Your task to perform on an android device: Open display settings Image 0: 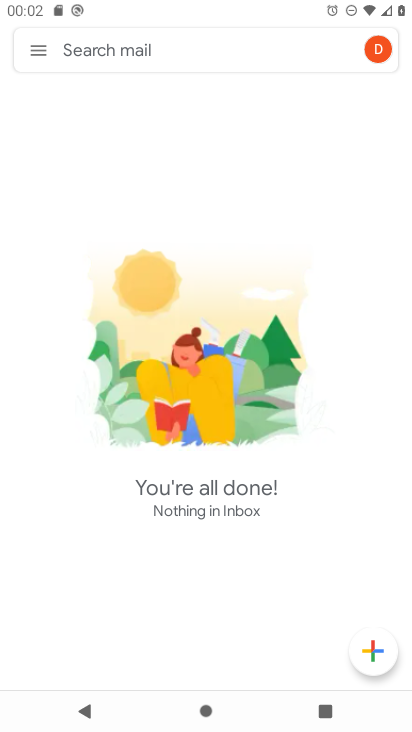
Step 0: press home button
Your task to perform on an android device: Open display settings Image 1: 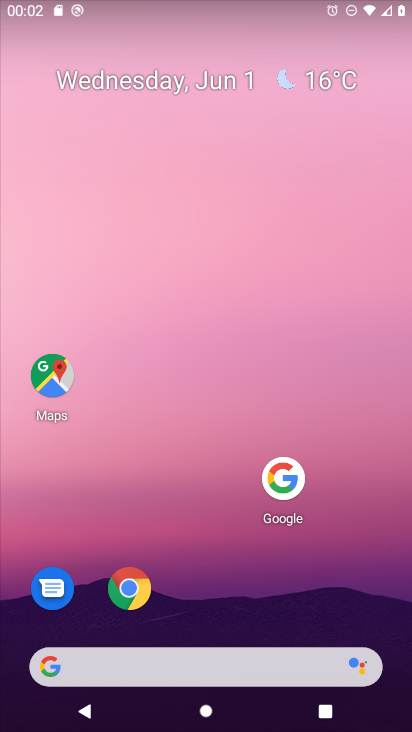
Step 1: drag from (161, 675) to (300, 104)
Your task to perform on an android device: Open display settings Image 2: 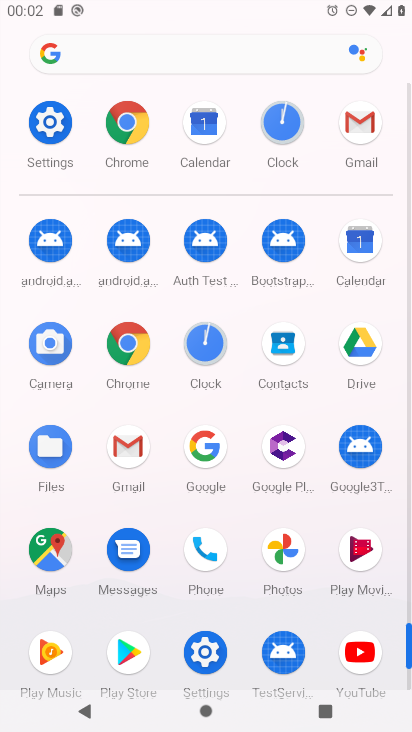
Step 2: click (51, 123)
Your task to perform on an android device: Open display settings Image 3: 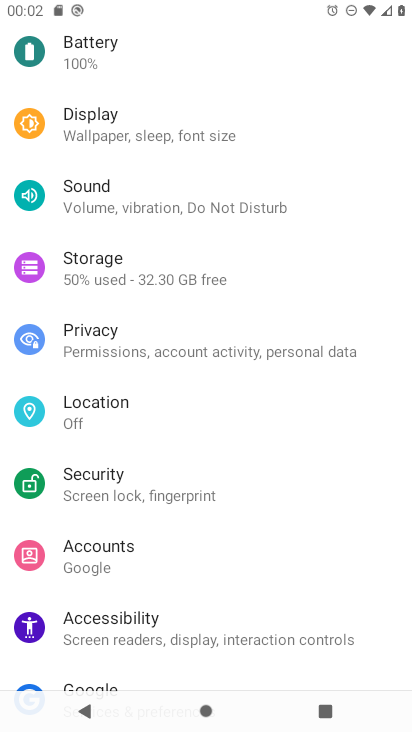
Step 3: click (132, 131)
Your task to perform on an android device: Open display settings Image 4: 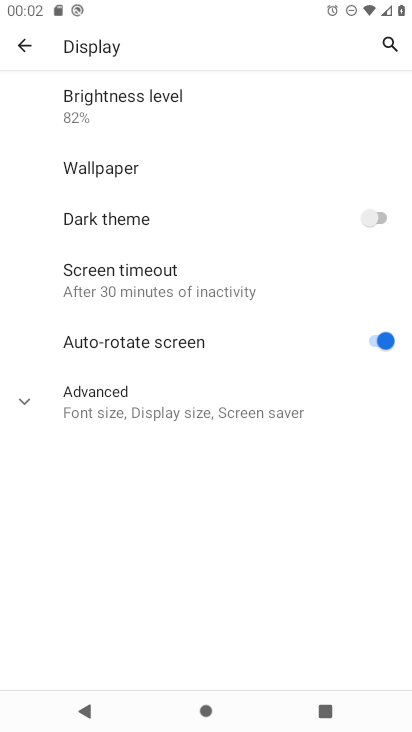
Step 4: click (111, 119)
Your task to perform on an android device: Open display settings Image 5: 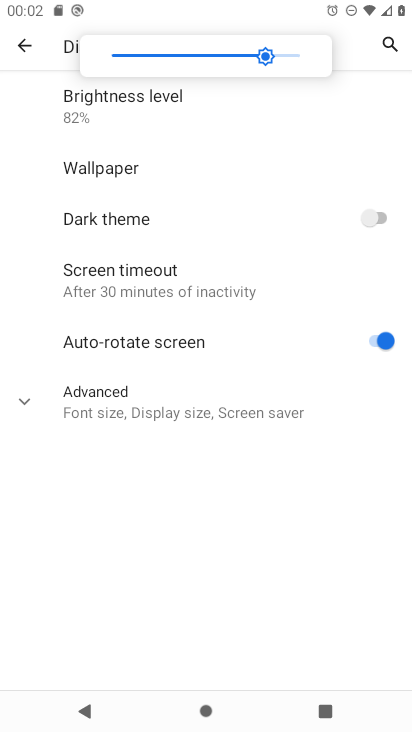
Step 5: task complete